Your task to perform on an android device: Open Wikipedia Image 0: 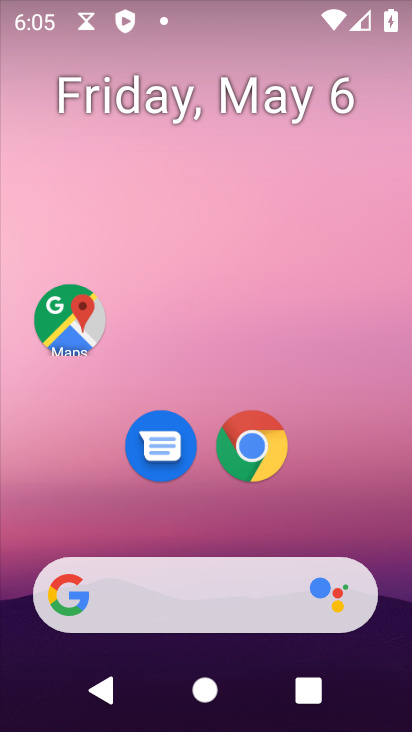
Step 0: drag from (273, 245) to (275, 180)
Your task to perform on an android device: Open Wikipedia Image 1: 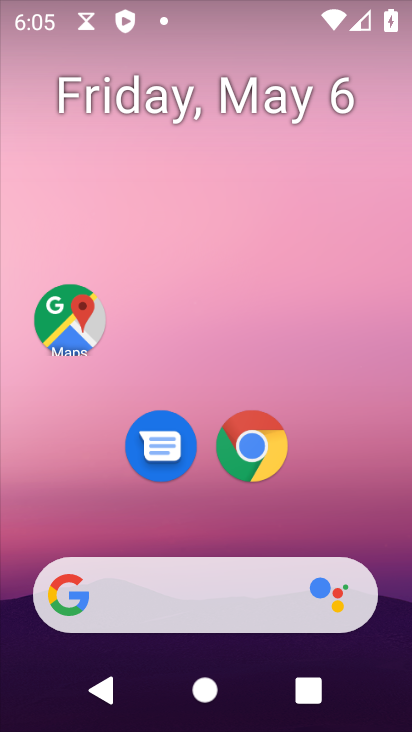
Step 1: drag from (307, 527) to (316, 148)
Your task to perform on an android device: Open Wikipedia Image 2: 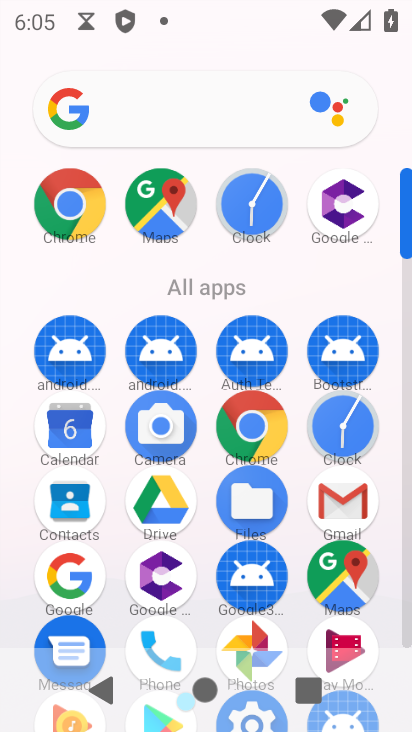
Step 2: click (49, 221)
Your task to perform on an android device: Open Wikipedia Image 3: 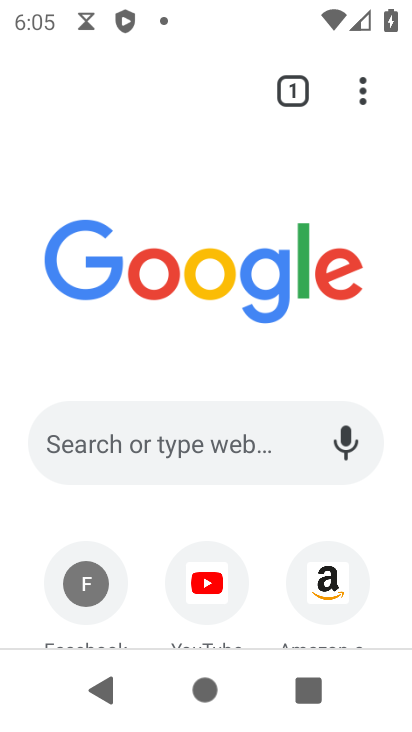
Step 3: drag from (196, 499) to (192, 226)
Your task to perform on an android device: Open Wikipedia Image 4: 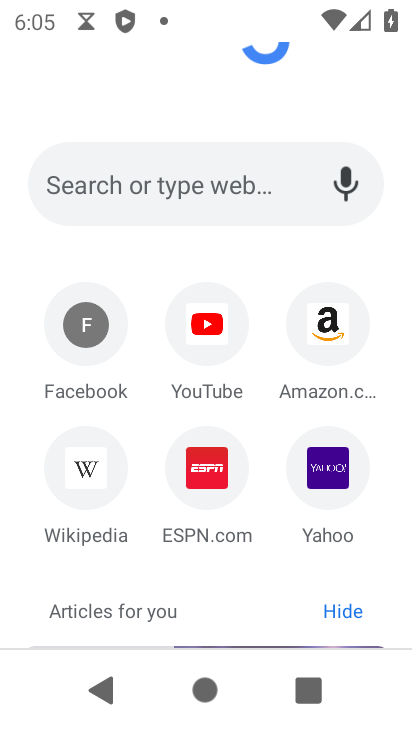
Step 4: click (83, 459)
Your task to perform on an android device: Open Wikipedia Image 5: 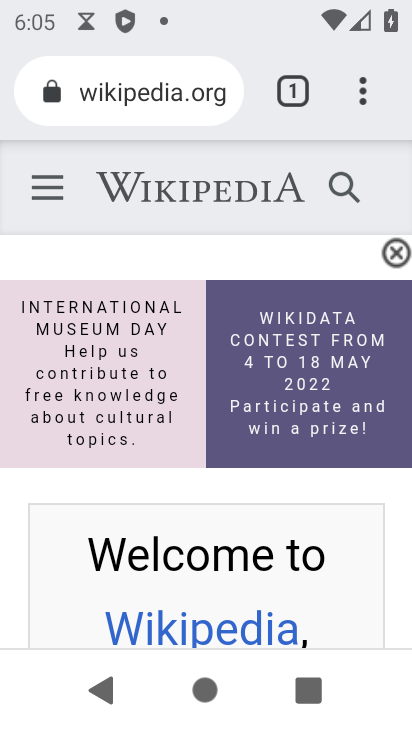
Step 5: task complete